Your task to perform on an android device: Open Chrome and go to the settings page Image 0: 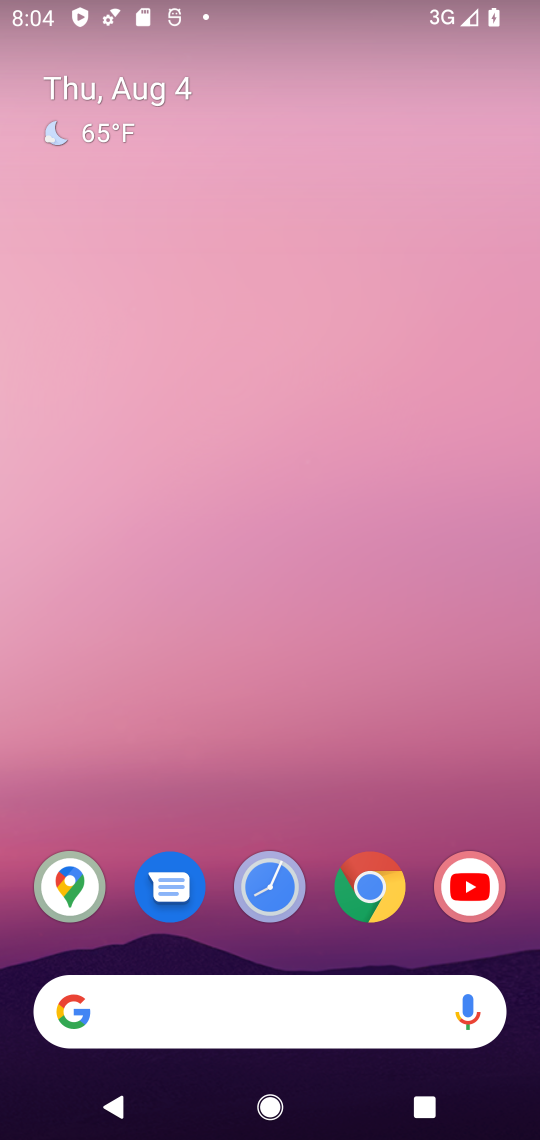
Step 0: drag from (289, 971) to (279, 391)
Your task to perform on an android device: Open Chrome and go to the settings page Image 1: 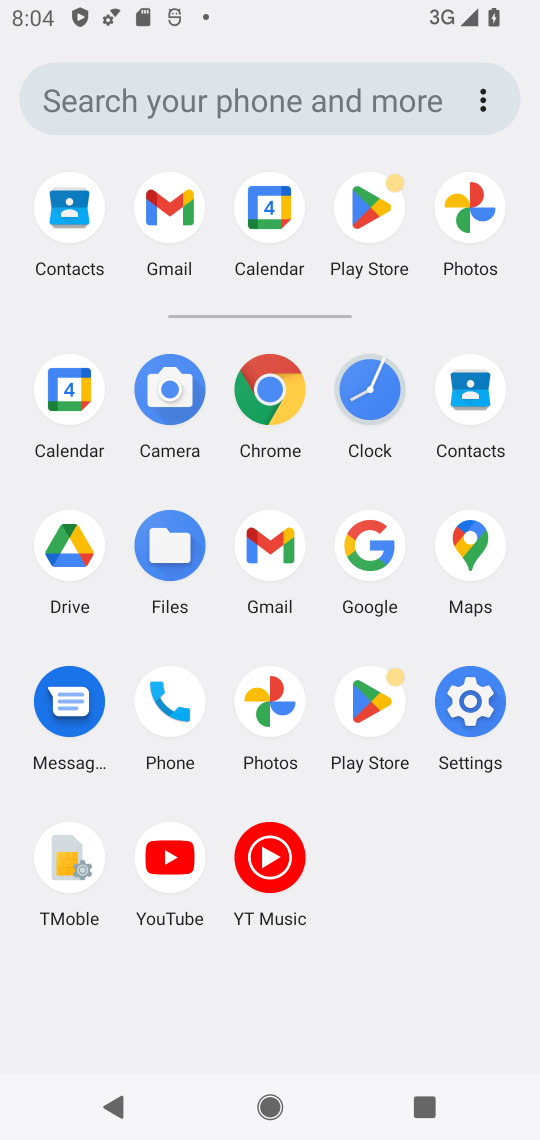
Step 1: click (456, 700)
Your task to perform on an android device: Open Chrome and go to the settings page Image 2: 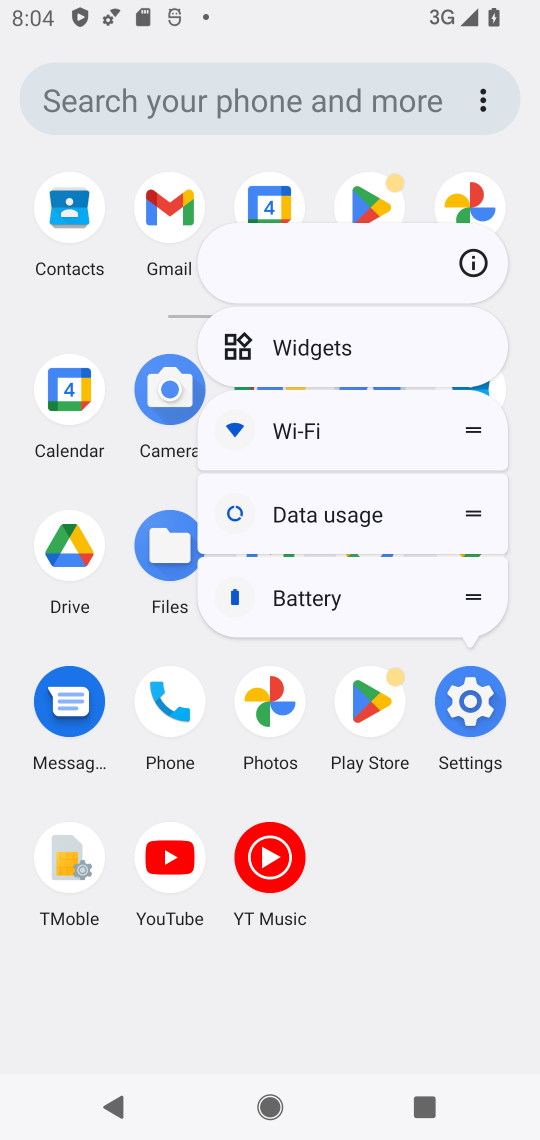
Step 2: click (115, 312)
Your task to perform on an android device: Open Chrome and go to the settings page Image 3: 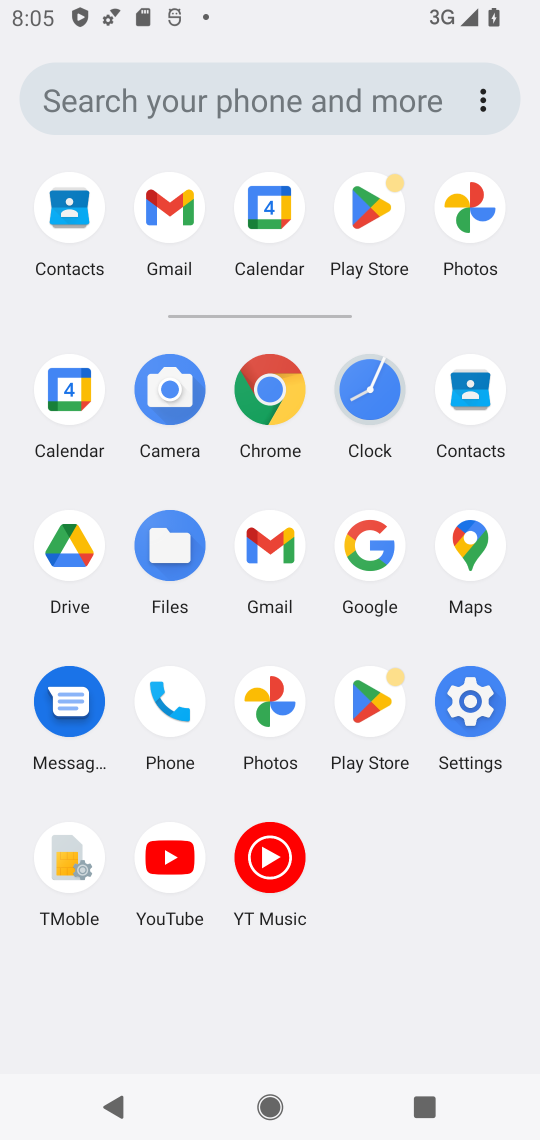
Step 3: click (282, 391)
Your task to perform on an android device: Open Chrome and go to the settings page Image 4: 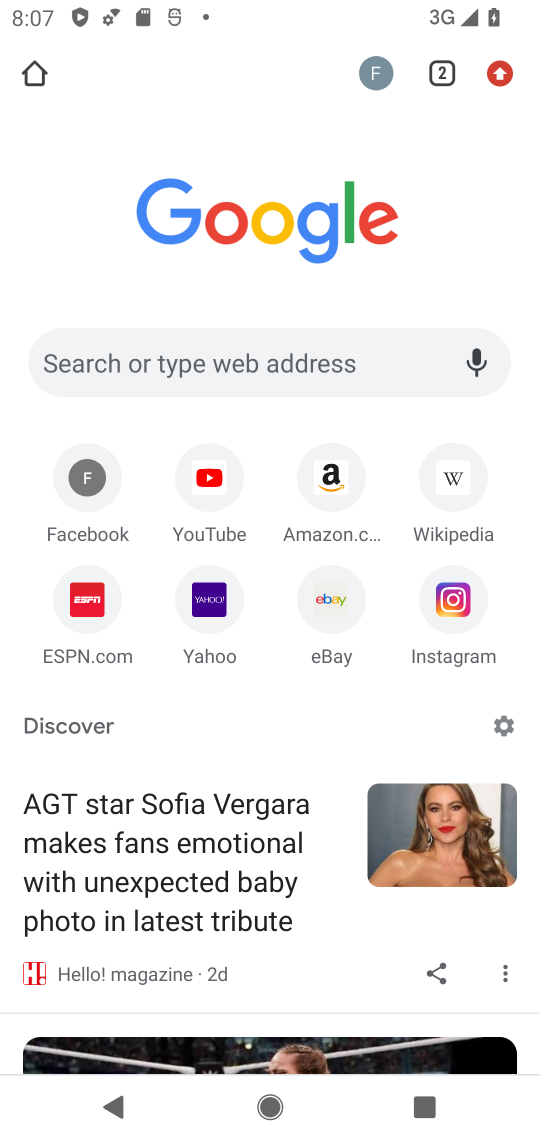
Step 4: click (504, 67)
Your task to perform on an android device: Open Chrome and go to the settings page Image 5: 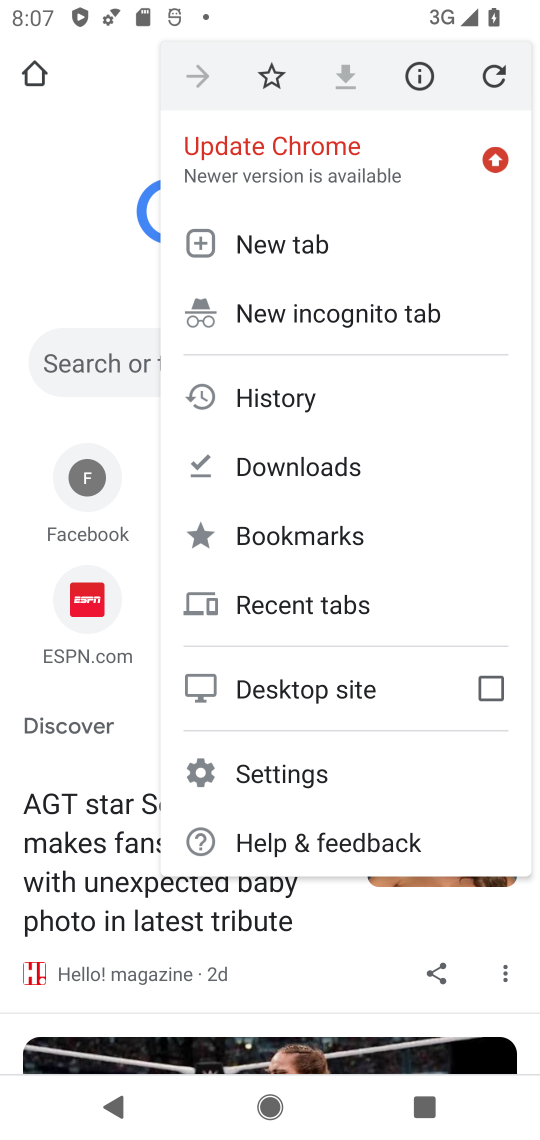
Step 5: click (244, 773)
Your task to perform on an android device: Open Chrome and go to the settings page Image 6: 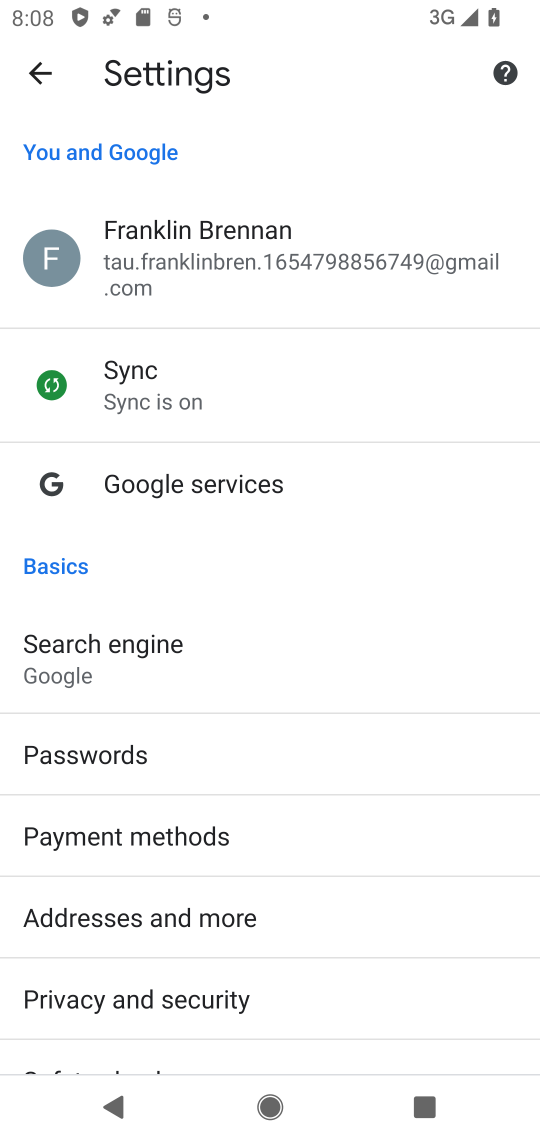
Step 6: task complete